Your task to perform on an android device: Play the last video I watched on Youtube Image 0: 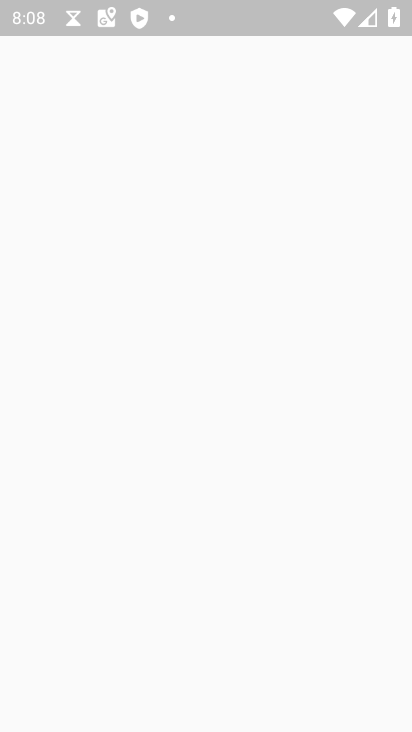
Step 0: press back button
Your task to perform on an android device: Play the last video I watched on Youtube Image 1: 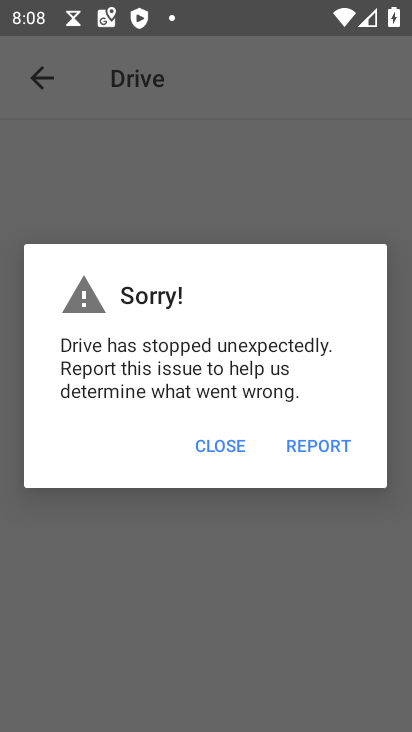
Step 1: press back button
Your task to perform on an android device: Play the last video I watched on Youtube Image 2: 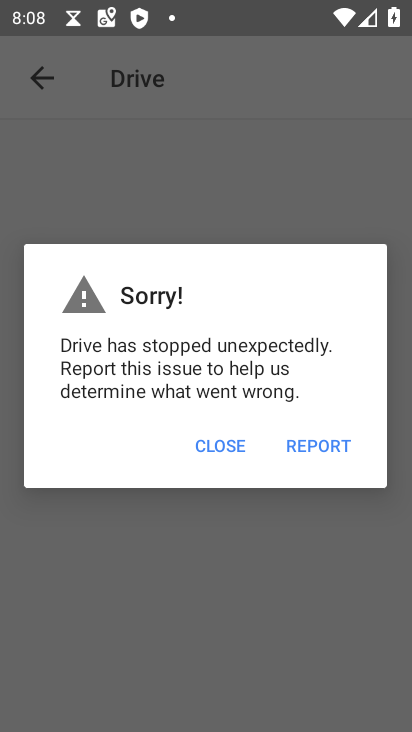
Step 2: press home button
Your task to perform on an android device: Play the last video I watched on Youtube Image 3: 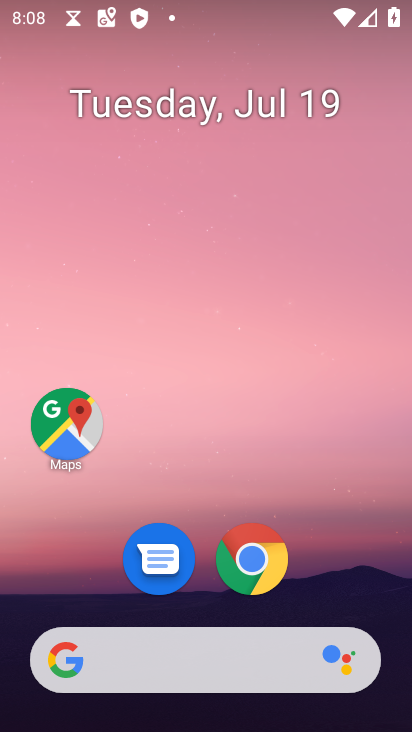
Step 3: drag from (129, 485) to (260, 23)
Your task to perform on an android device: Play the last video I watched on Youtube Image 4: 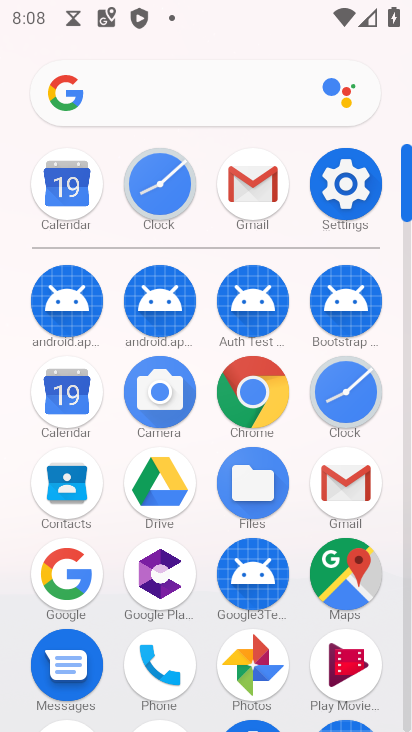
Step 4: drag from (269, 645) to (387, 74)
Your task to perform on an android device: Play the last video I watched on Youtube Image 5: 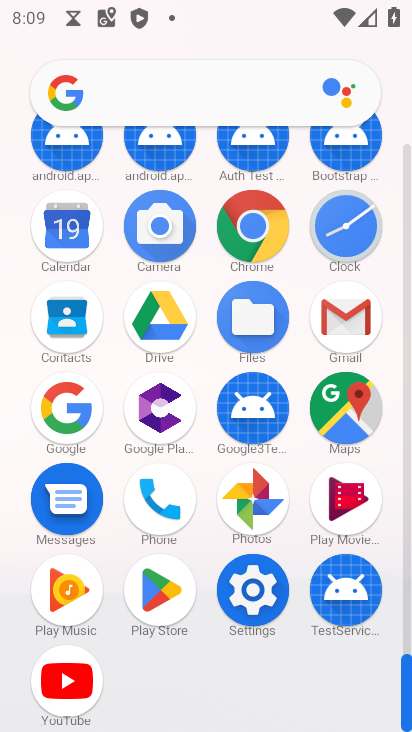
Step 5: click (48, 678)
Your task to perform on an android device: Play the last video I watched on Youtube Image 6: 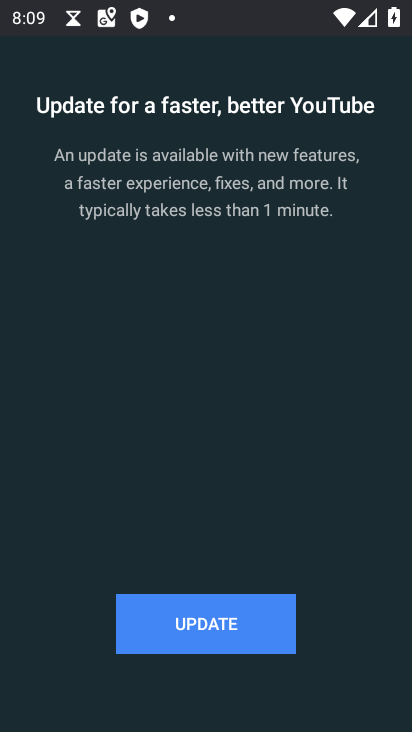
Step 6: click (166, 637)
Your task to perform on an android device: Play the last video I watched on Youtube Image 7: 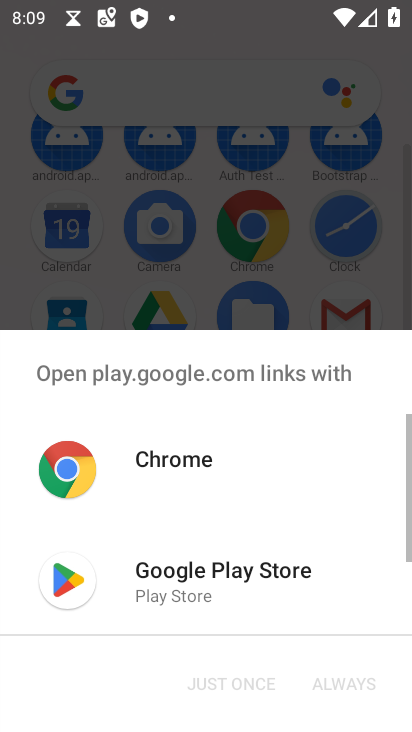
Step 7: click (202, 567)
Your task to perform on an android device: Play the last video I watched on Youtube Image 8: 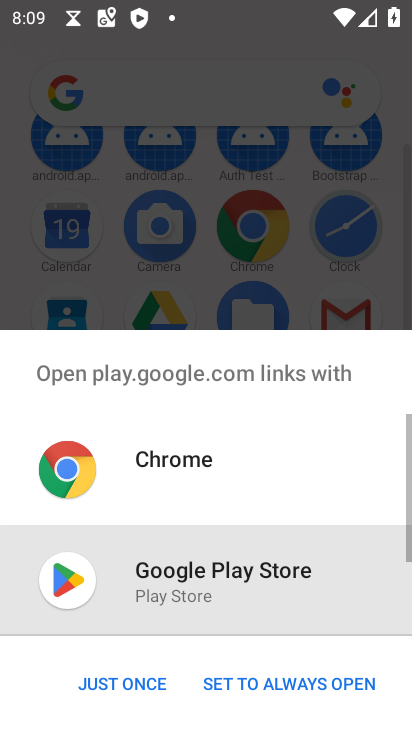
Step 8: click (119, 674)
Your task to perform on an android device: Play the last video I watched on Youtube Image 9: 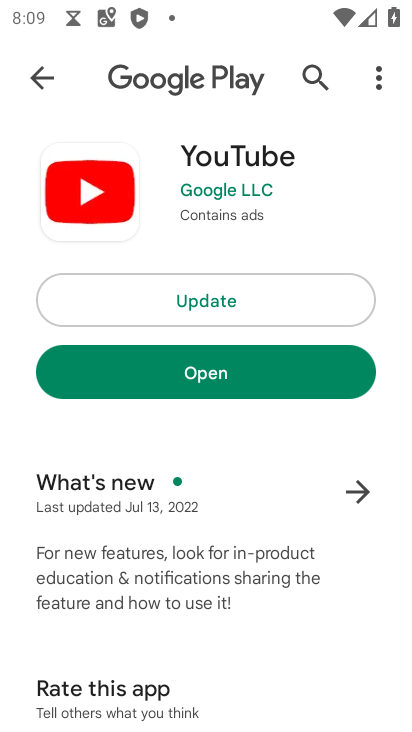
Step 9: click (223, 299)
Your task to perform on an android device: Play the last video I watched on Youtube Image 10: 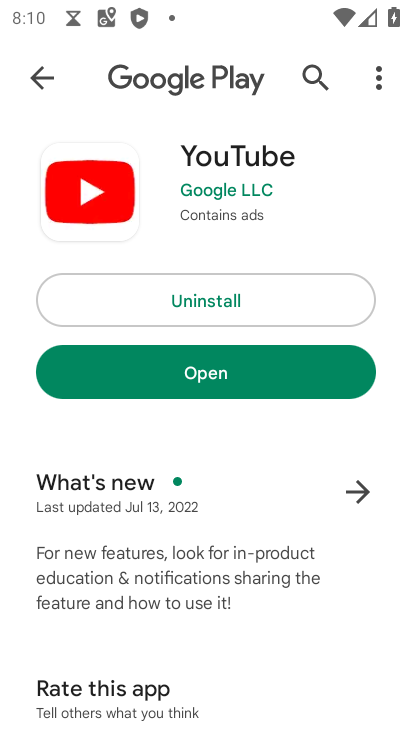
Step 10: click (173, 385)
Your task to perform on an android device: Play the last video I watched on Youtube Image 11: 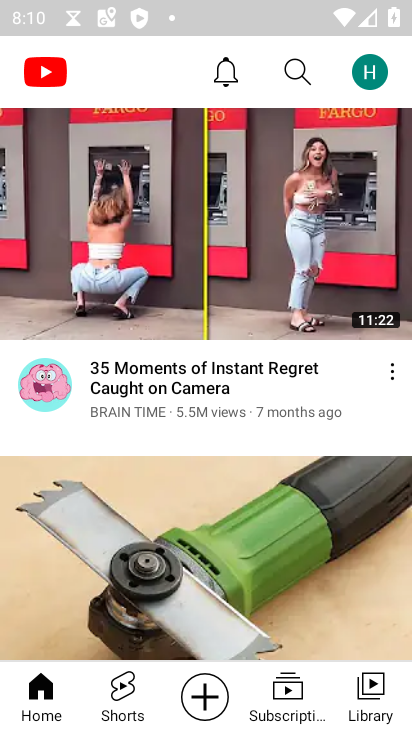
Step 11: click (375, 712)
Your task to perform on an android device: Play the last video I watched on Youtube Image 12: 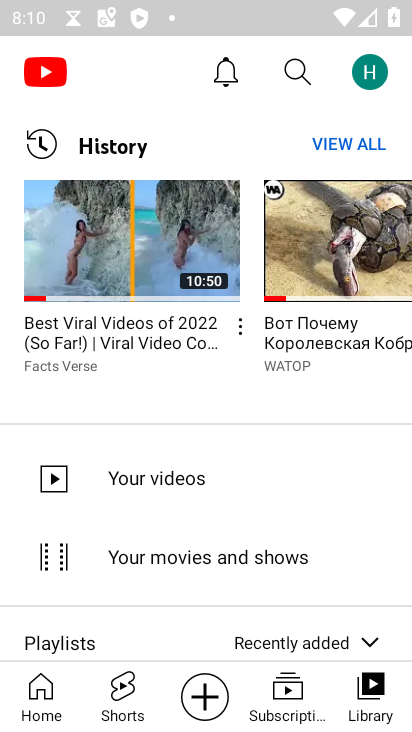
Step 12: click (119, 258)
Your task to perform on an android device: Play the last video I watched on Youtube Image 13: 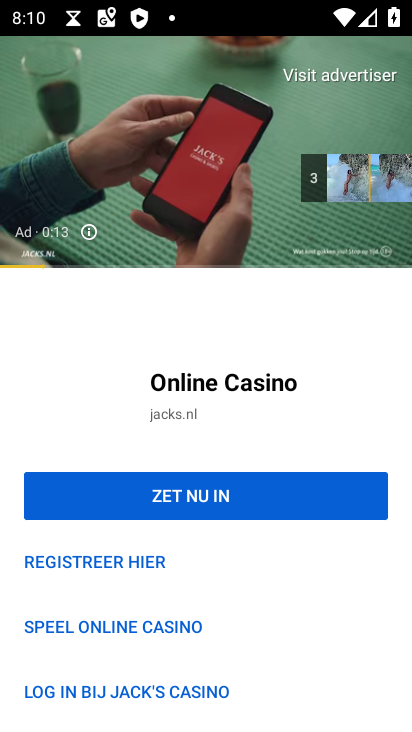
Step 13: click (187, 169)
Your task to perform on an android device: Play the last video I watched on Youtube Image 14: 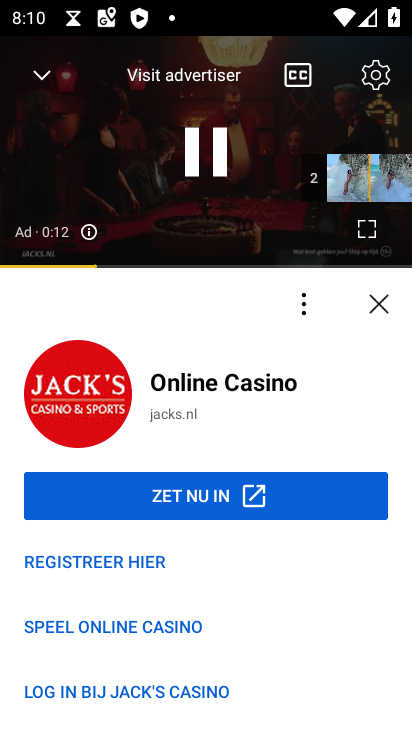
Step 14: click (196, 155)
Your task to perform on an android device: Play the last video I watched on Youtube Image 15: 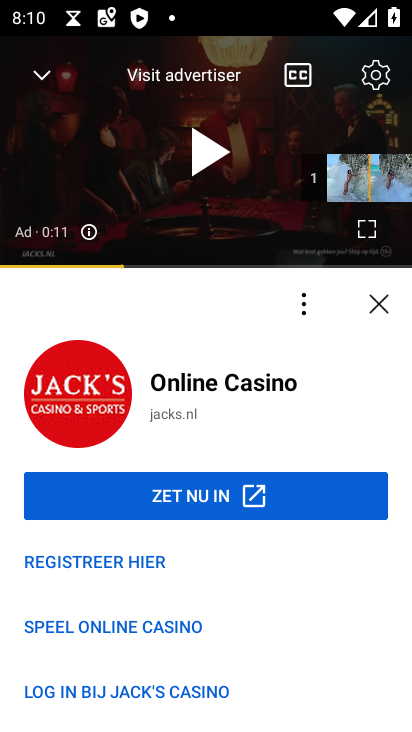
Step 15: task complete